Your task to perform on an android device: turn on javascript in the chrome app Image 0: 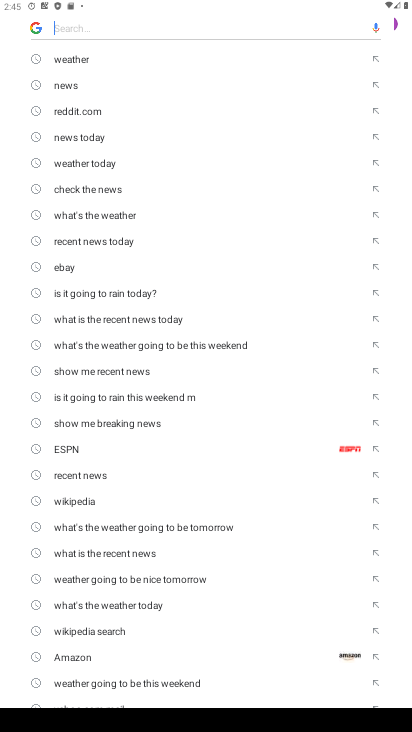
Step 0: press home button
Your task to perform on an android device: turn on javascript in the chrome app Image 1: 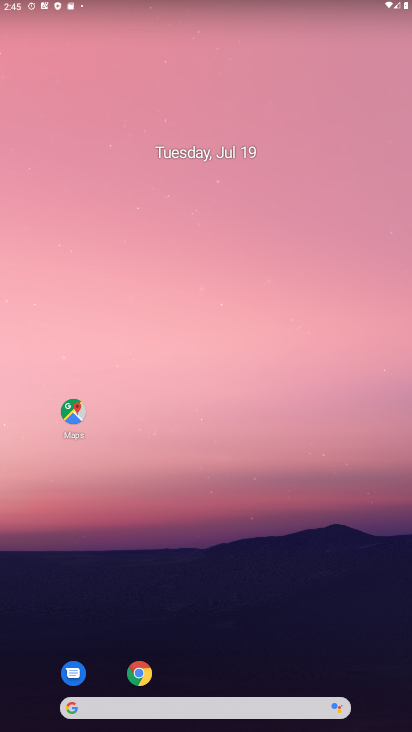
Step 1: click (133, 663)
Your task to perform on an android device: turn on javascript in the chrome app Image 2: 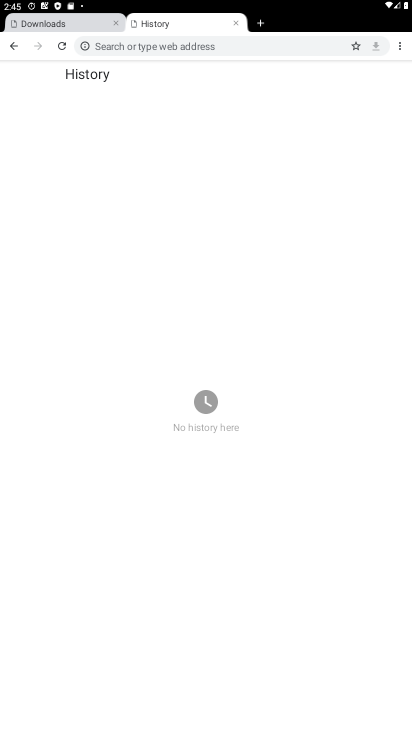
Step 2: click (399, 47)
Your task to perform on an android device: turn on javascript in the chrome app Image 3: 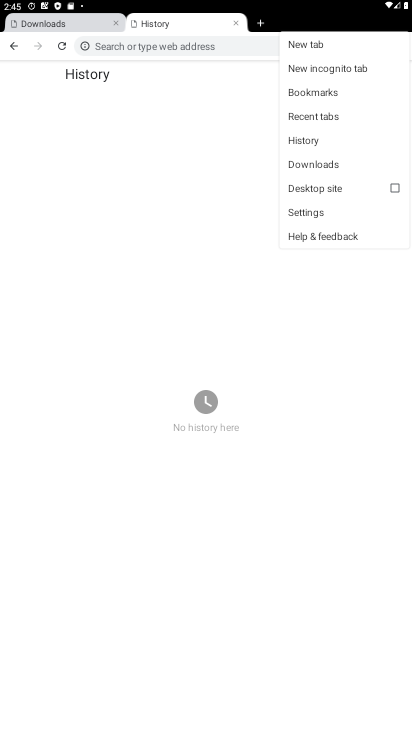
Step 3: click (313, 214)
Your task to perform on an android device: turn on javascript in the chrome app Image 4: 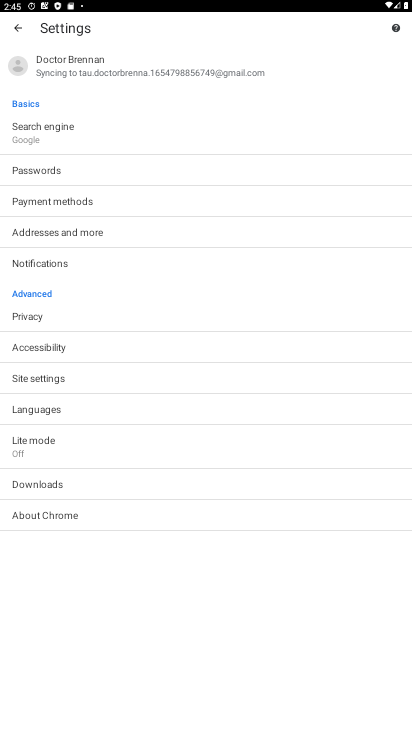
Step 4: click (63, 383)
Your task to perform on an android device: turn on javascript in the chrome app Image 5: 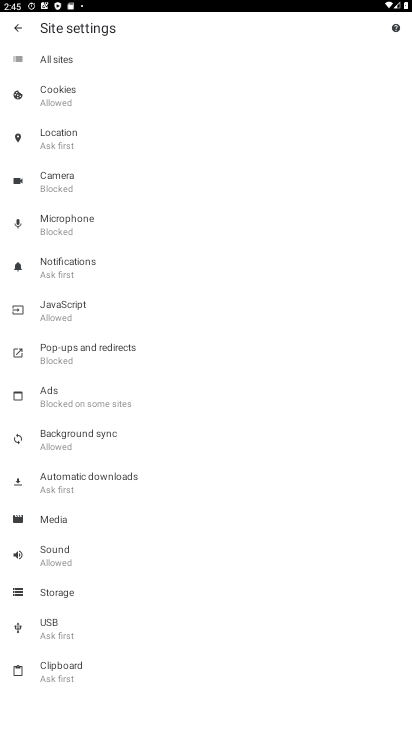
Step 5: click (67, 308)
Your task to perform on an android device: turn on javascript in the chrome app Image 6: 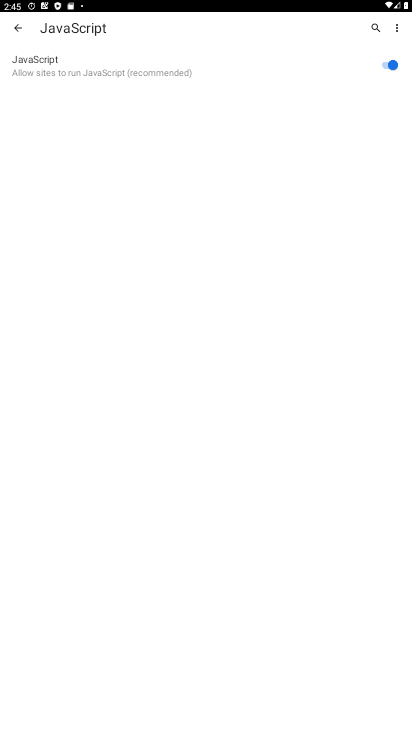
Step 6: task complete